Your task to perform on an android device: Show me popular videos on Youtube Image 0: 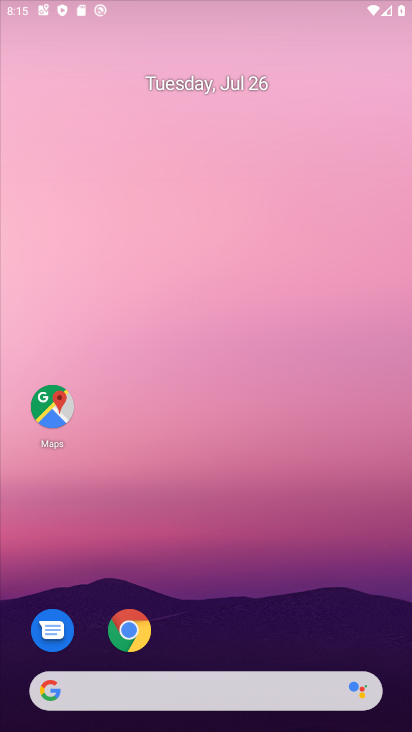
Step 0: drag from (308, 652) to (288, 181)
Your task to perform on an android device: Show me popular videos on Youtube Image 1: 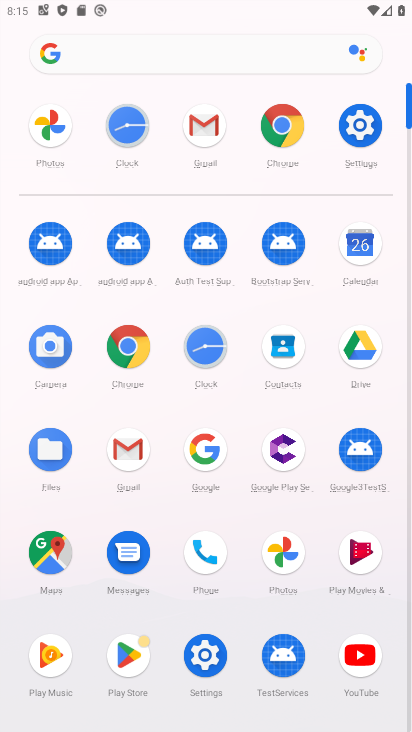
Step 1: click (353, 656)
Your task to perform on an android device: Show me popular videos on Youtube Image 2: 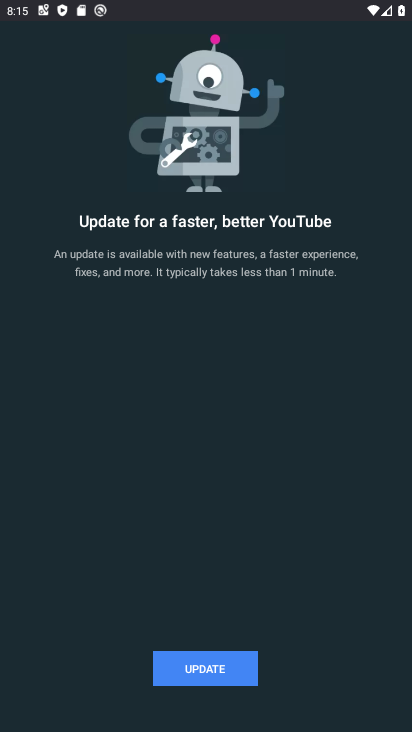
Step 2: click (254, 663)
Your task to perform on an android device: Show me popular videos on Youtube Image 3: 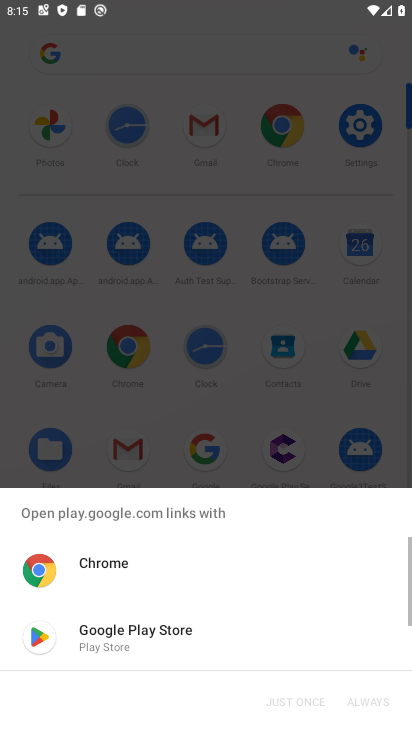
Step 3: click (175, 630)
Your task to perform on an android device: Show me popular videos on Youtube Image 4: 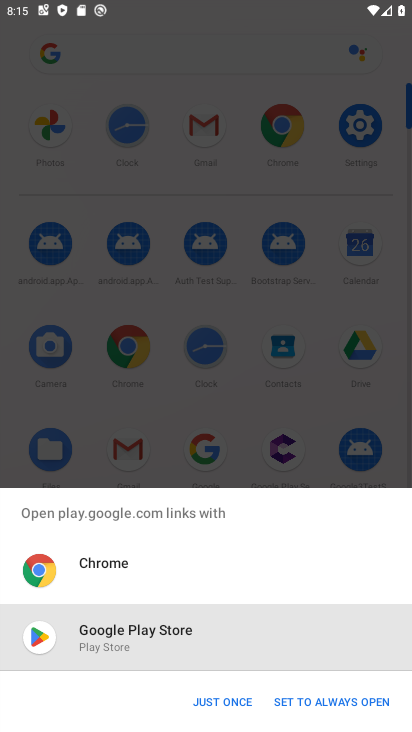
Step 4: click (206, 697)
Your task to perform on an android device: Show me popular videos on Youtube Image 5: 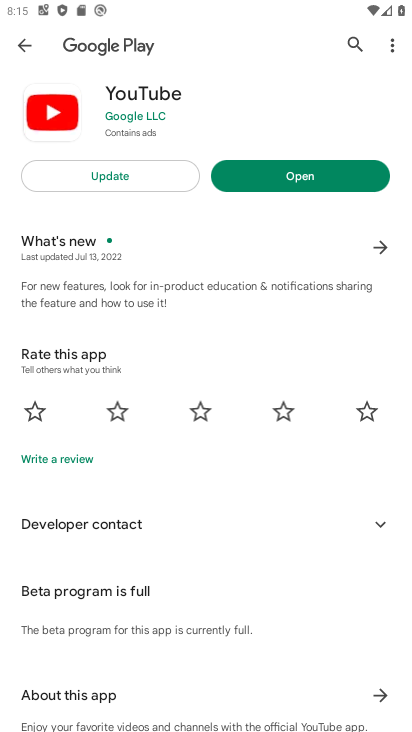
Step 5: click (120, 165)
Your task to perform on an android device: Show me popular videos on Youtube Image 6: 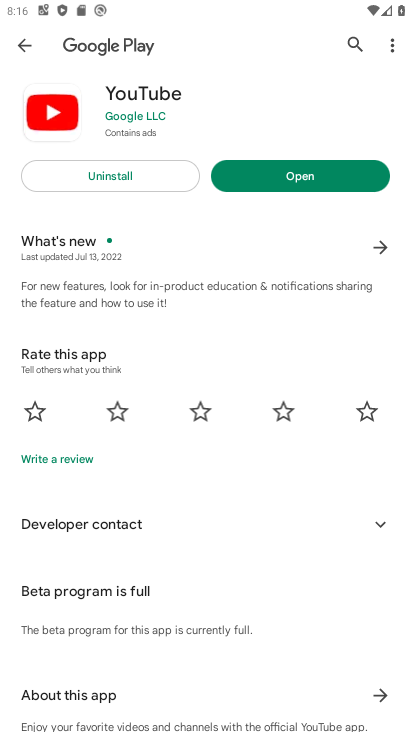
Step 6: click (318, 183)
Your task to perform on an android device: Show me popular videos on Youtube Image 7: 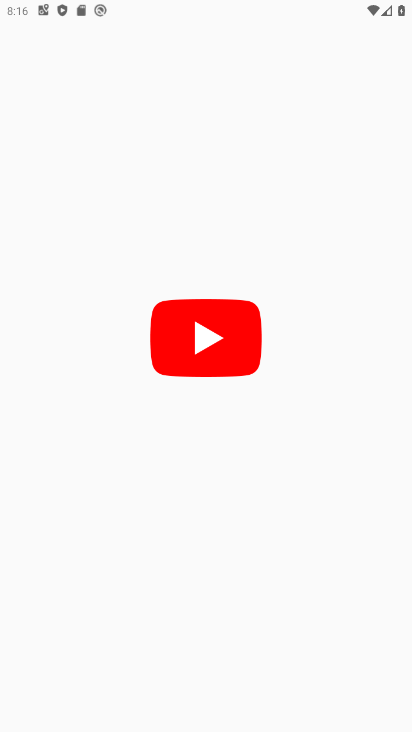
Step 7: task complete